Your task to perform on an android device: turn on the 12-hour format for clock Image 0: 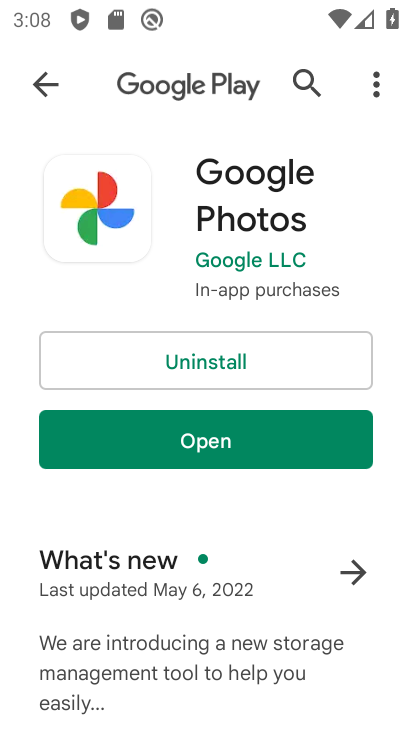
Step 0: press home button
Your task to perform on an android device: turn on the 12-hour format for clock Image 1: 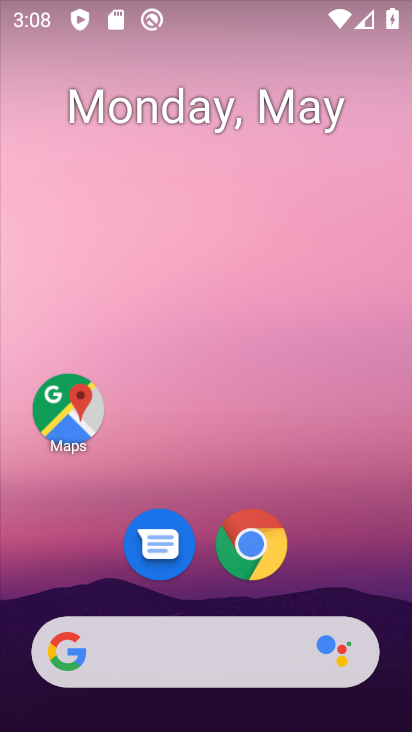
Step 1: drag from (256, 566) to (259, 15)
Your task to perform on an android device: turn on the 12-hour format for clock Image 2: 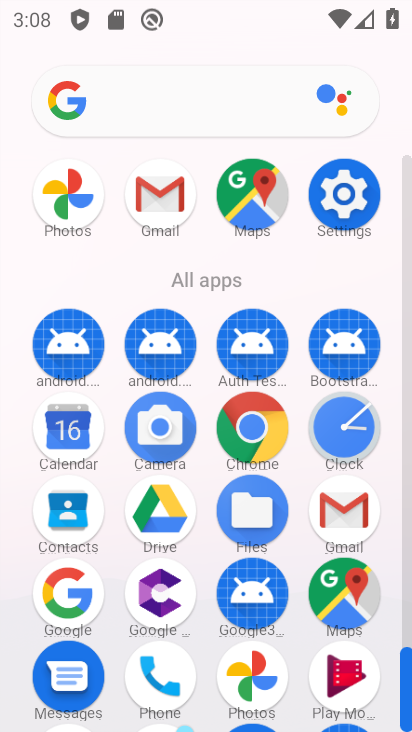
Step 2: click (363, 412)
Your task to perform on an android device: turn on the 12-hour format for clock Image 3: 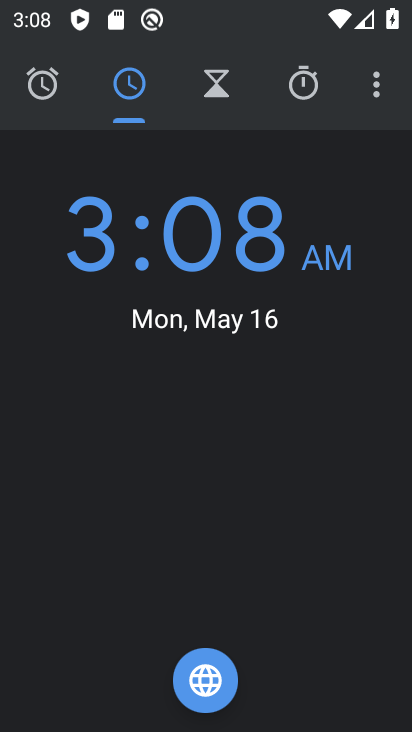
Step 3: click (370, 80)
Your task to perform on an android device: turn on the 12-hour format for clock Image 4: 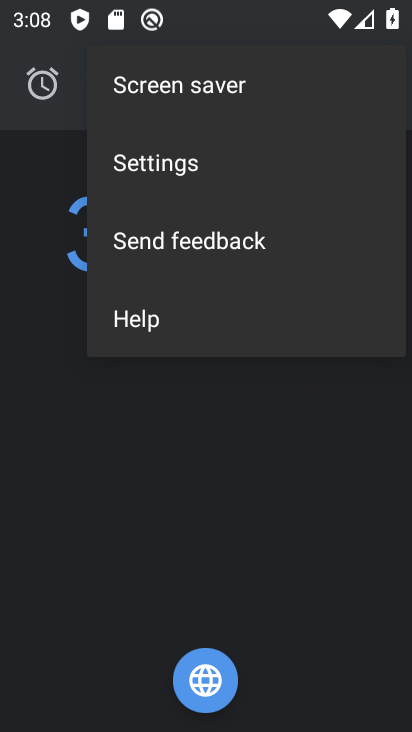
Step 4: click (188, 172)
Your task to perform on an android device: turn on the 12-hour format for clock Image 5: 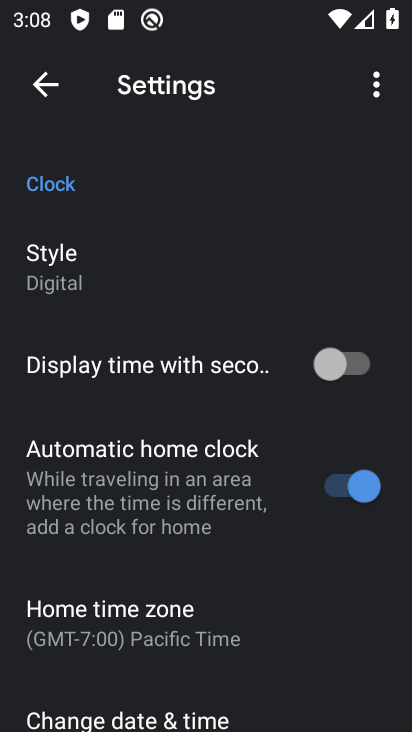
Step 5: drag from (288, 658) to (266, 253)
Your task to perform on an android device: turn on the 12-hour format for clock Image 6: 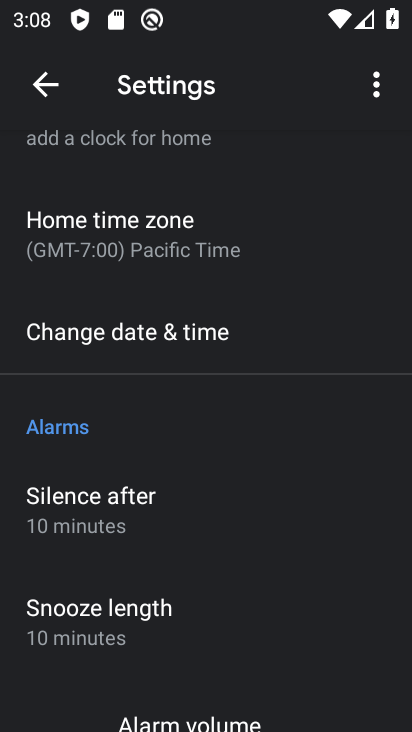
Step 6: click (167, 328)
Your task to perform on an android device: turn on the 12-hour format for clock Image 7: 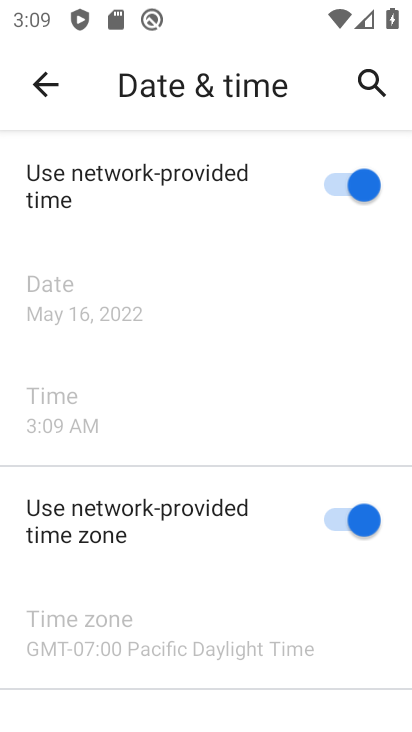
Step 7: drag from (340, 662) to (298, 149)
Your task to perform on an android device: turn on the 12-hour format for clock Image 8: 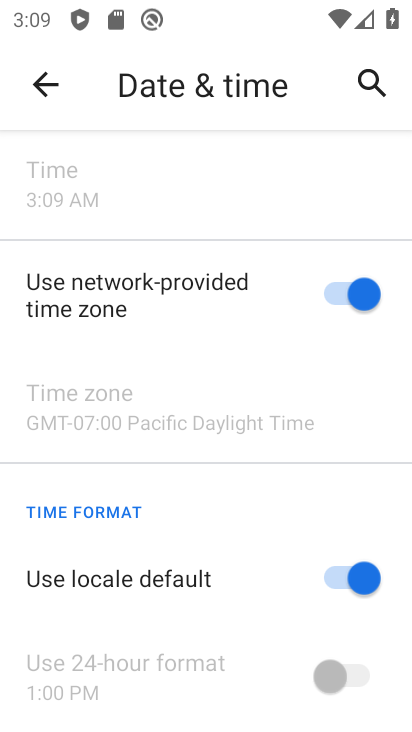
Step 8: click (344, 579)
Your task to perform on an android device: turn on the 12-hour format for clock Image 9: 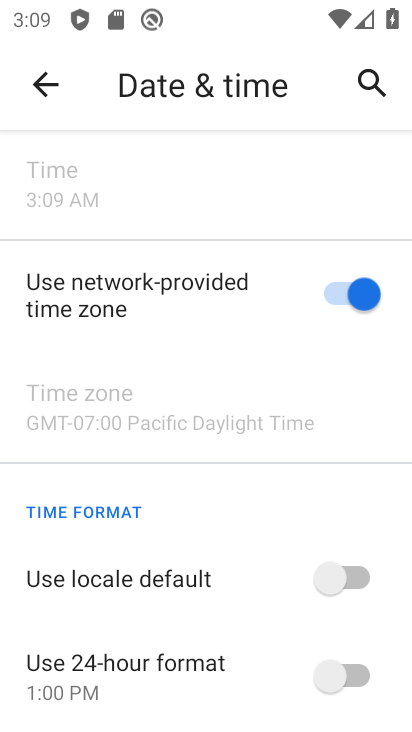
Step 9: task complete